Your task to perform on an android device: Check the news Image 0: 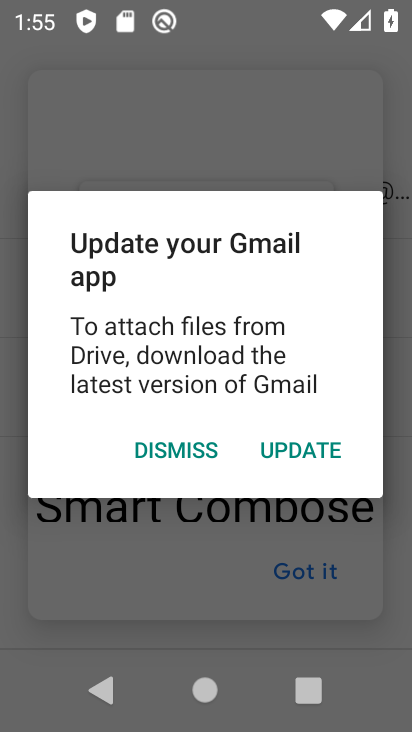
Step 0: press home button
Your task to perform on an android device: Check the news Image 1: 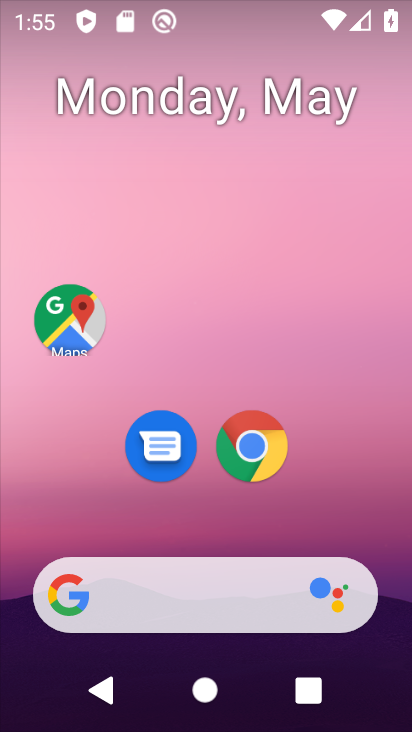
Step 1: drag from (352, 507) to (278, 85)
Your task to perform on an android device: Check the news Image 2: 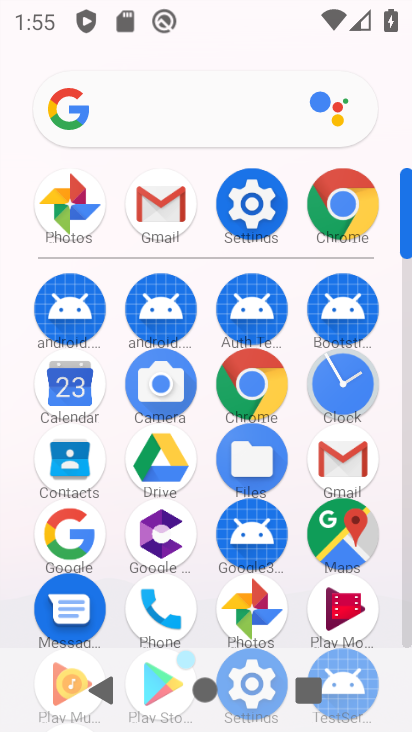
Step 2: click (257, 389)
Your task to perform on an android device: Check the news Image 3: 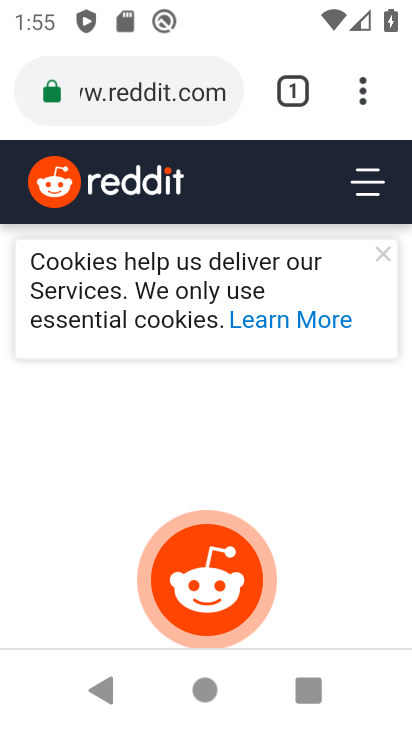
Step 3: click (211, 95)
Your task to perform on an android device: Check the news Image 4: 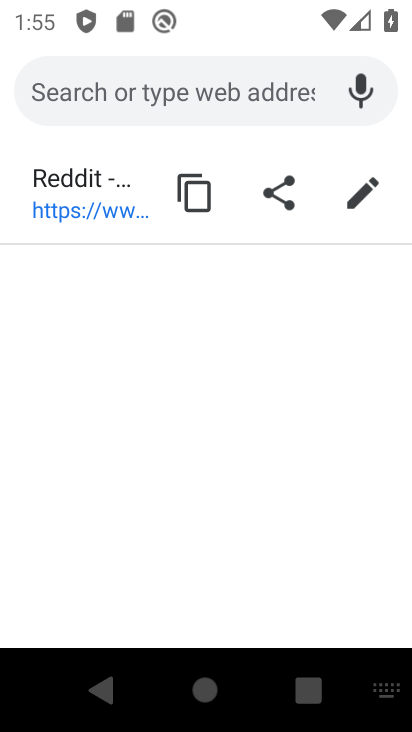
Step 4: type "check the news"
Your task to perform on an android device: Check the news Image 5: 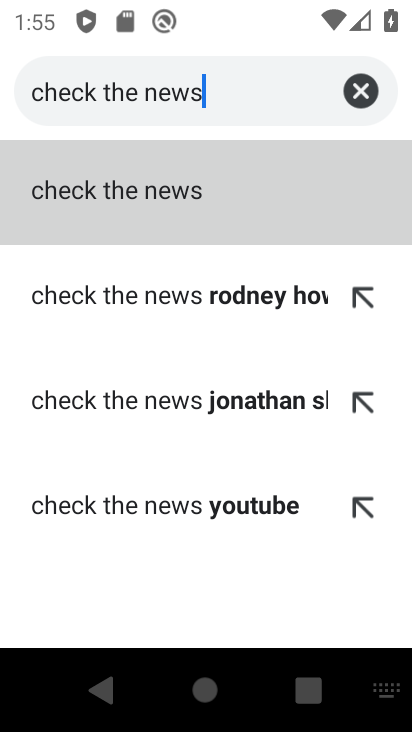
Step 5: click (153, 219)
Your task to perform on an android device: Check the news Image 6: 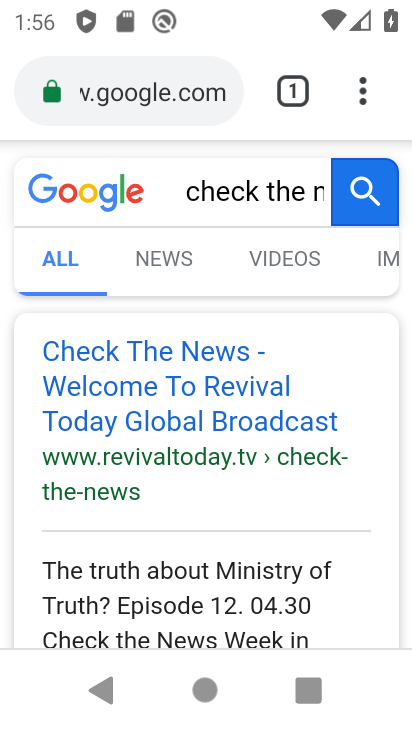
Step 6: task complete